Your task to perform on an android device: uninstall "Expedia: Hotels, Flights & Car" Image 0: 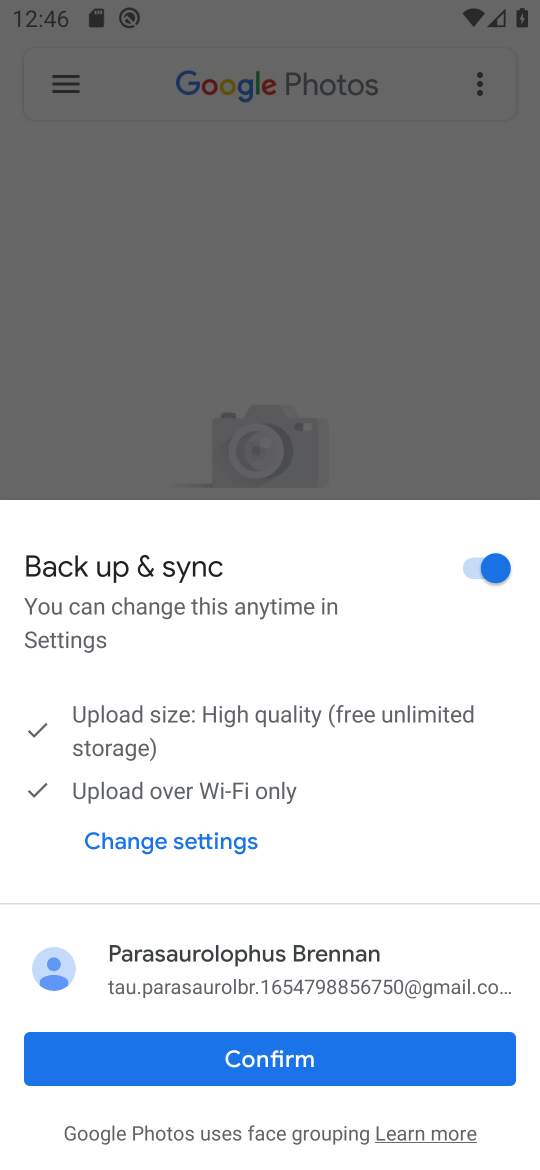
Step 0: press home button
Your task to perform on an android device: uninstall "Expedia: Hotels, Flights & Car" Image 1: 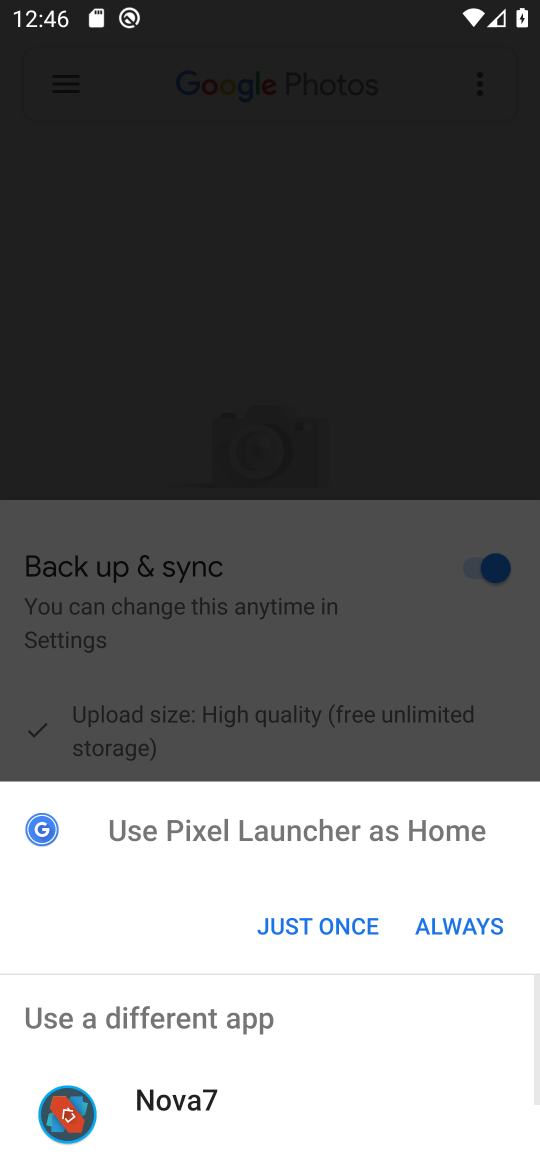
Step 1: task complete